Your task to perform on an android device: Open Youtube and go to the subscriptions tab Image 0: 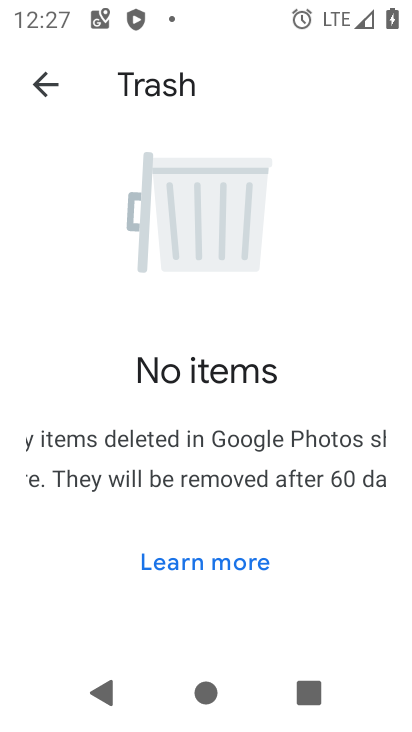
Step 0: press home button
Your task to perform on an android device: Open Youtube and go to the subscriptions tab Image 1: 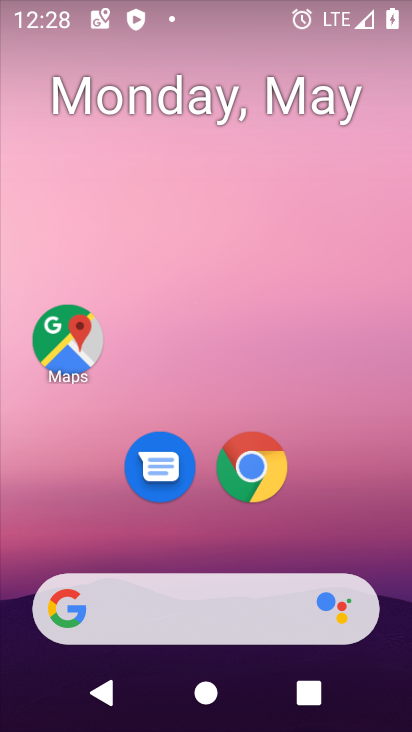
Step 1: drag from (348, 549) to (358, 13)
Your task to perform on an android device: Open Youtube and go to the subscriptions tab Image 2: 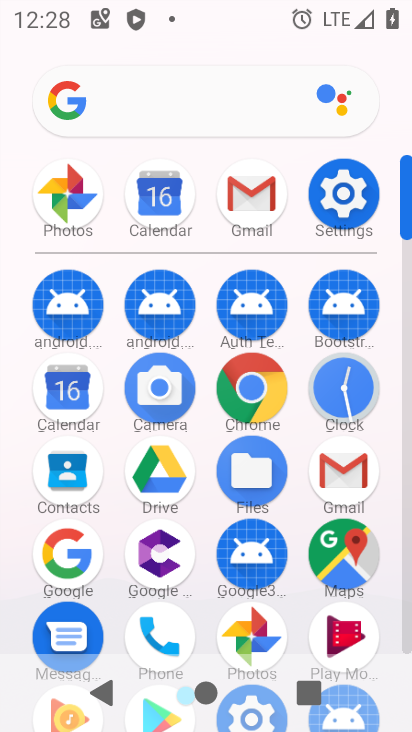
Step 2: drag from (406, 553) to (411, 466)
Your task to perform on an android device: Open Youtube and go to the subscriptions tab Image 3: 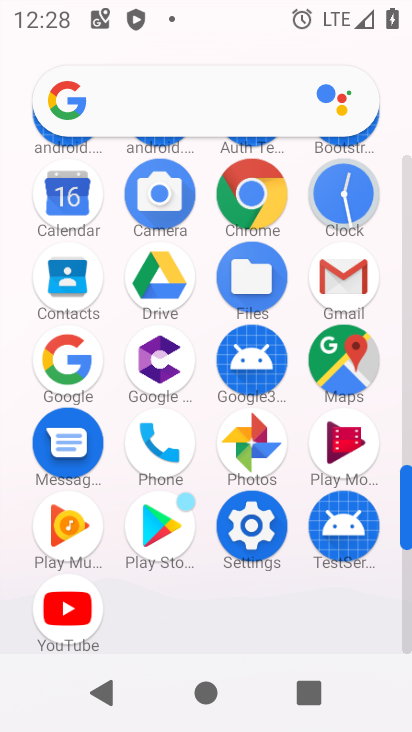
Step 3: click (73, 618)
Your task to perform on an android device: Open Youtube and go to the subscriptions tab Image 4: 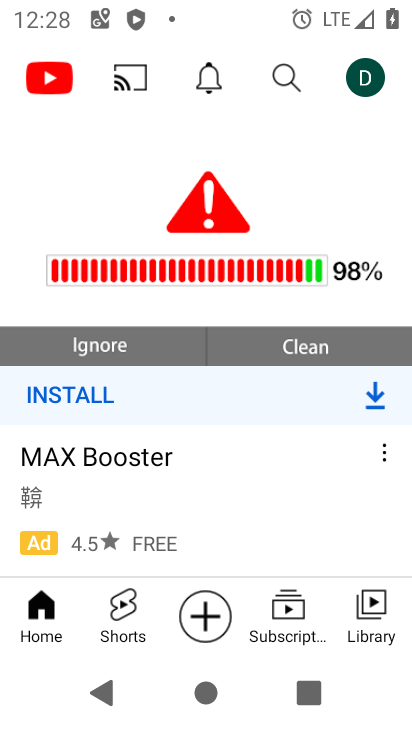
Step 4: click (290, 620)
Your task to perform on an android device: Open Youtube and go to the subscriptions tab Image 5: 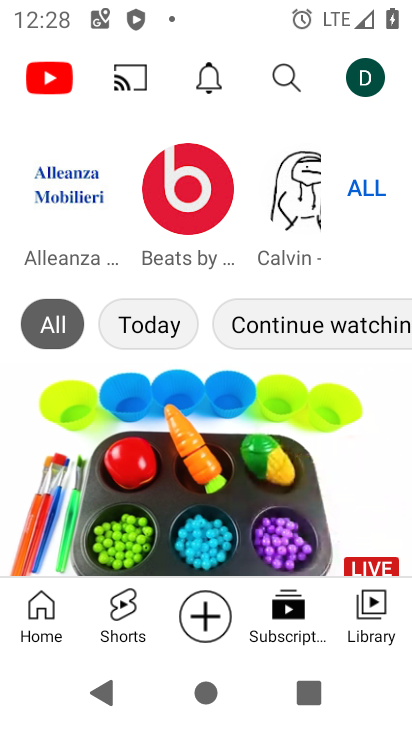
Step 5: click (284, 615)
Your task to perform on an android device: Open Youtube and go to the subscriptions tab Image 6: 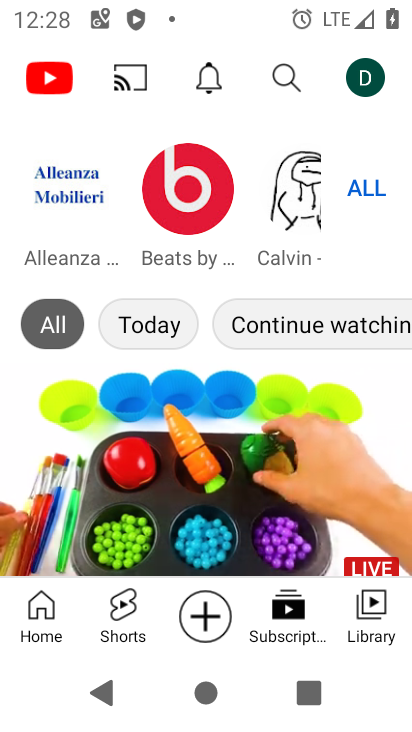
Step 6: task complete